Your task to perform on an android device: Do I have any events today? Image 0: 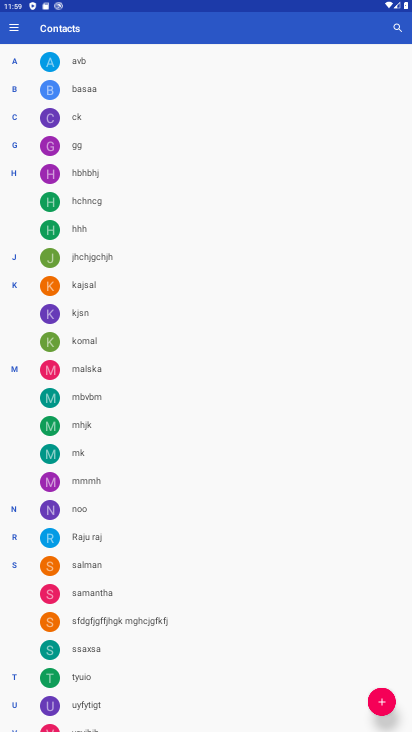
Step 0: press home button
Your task to perform on an android device: Do I have any events today? Image 1: 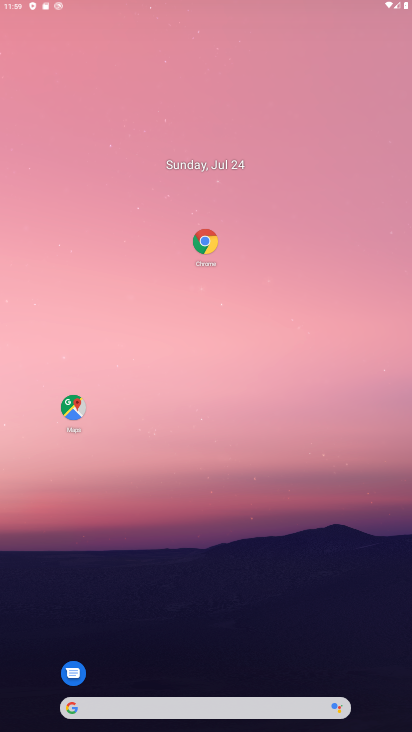
Step 1: drag from (186, 713) to (340, 88)
Your task to perform on an android device: Do I have any events today? Image 2: 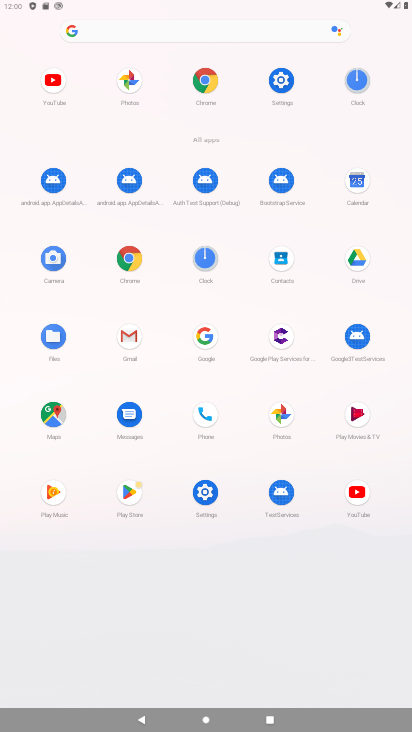
Step 2: click (109, 253)
Your task to perform on an android device: Do I have any events today? Image 3: 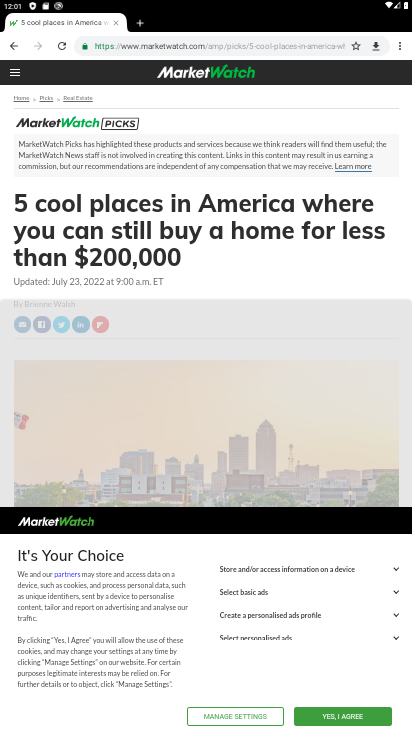
Step 3: press home button
Your task to perform on an android device: Do I have any events today? Image 4: 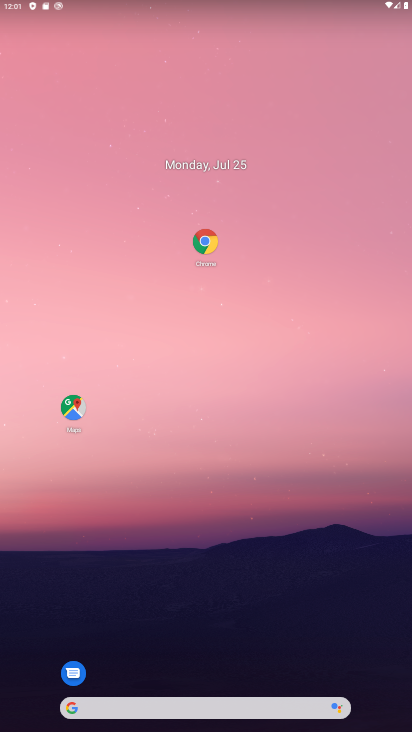
Step 4: drag from (234, 565) to (209, 4)
Your task to perform on an android device: Do I have any events today? Image 5: 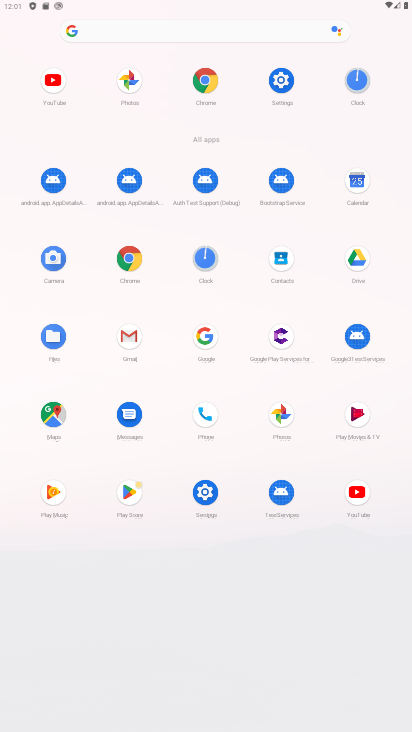
Step 5: click (365, 182)
Your task to perform on an android device: Do I have any events today? Image 6: 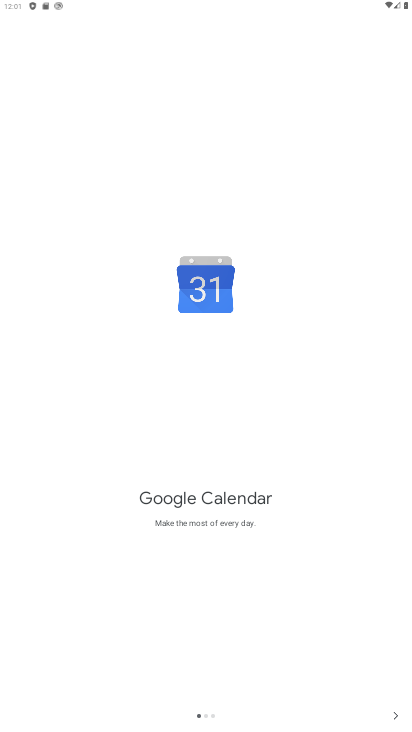
Step 6: click (390, 720)
Your task to perform on an android device: Do I have any events today? Image 7: 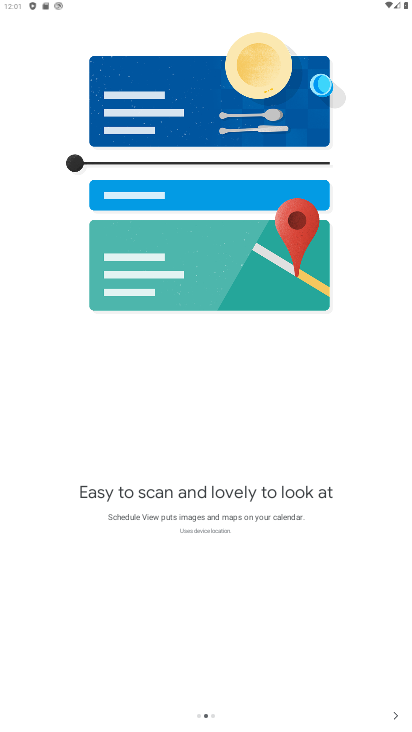
Step 7: click (390, 720)
Your task to perform on an android device: Do I have any events today? Image 8: 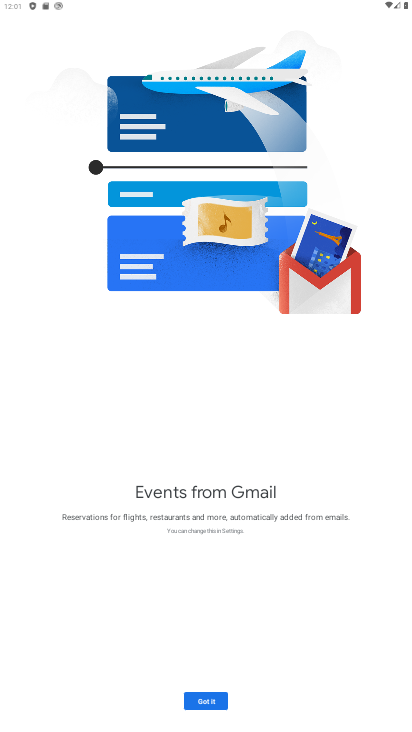
Step 8: click (206, 703)
Your task to perform on an android device: Do I have any events today? Image 9: 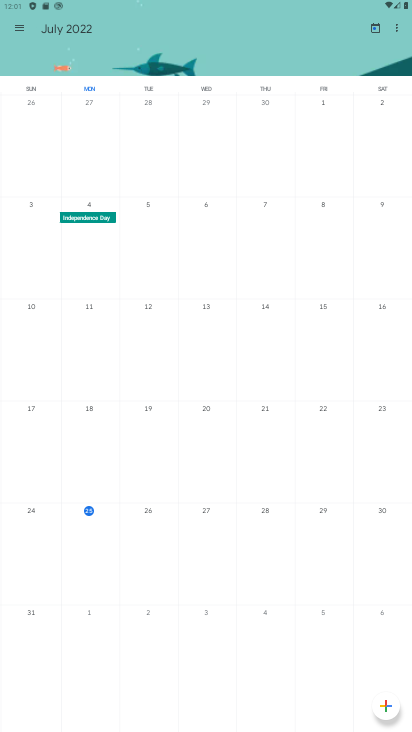
Step 9: task complete